Your task to perform on an android device: Open Amazon Image 0: 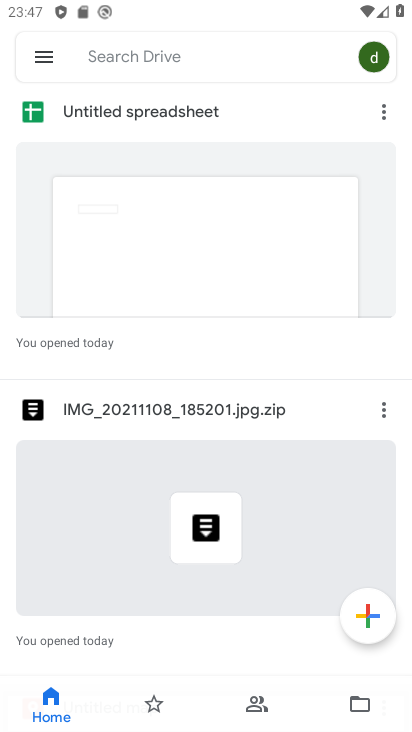
Step 0: press home button
Your task to perform on an android device: Open Amazon Image 1: 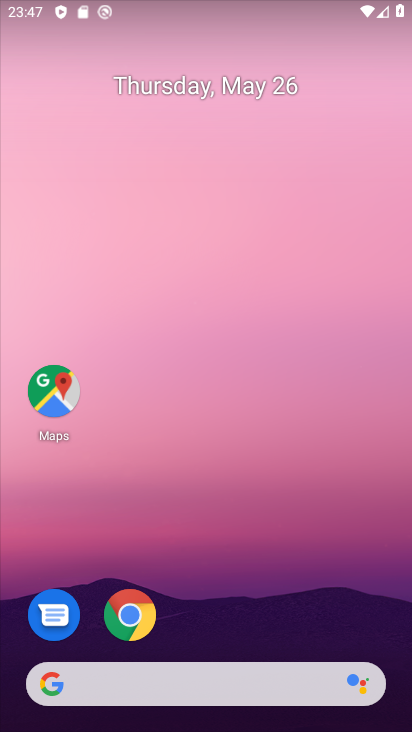
Step 1: drag from (315, 634) to (389, 177)
Your task to perform on an android device: Open Amazon Image 2: 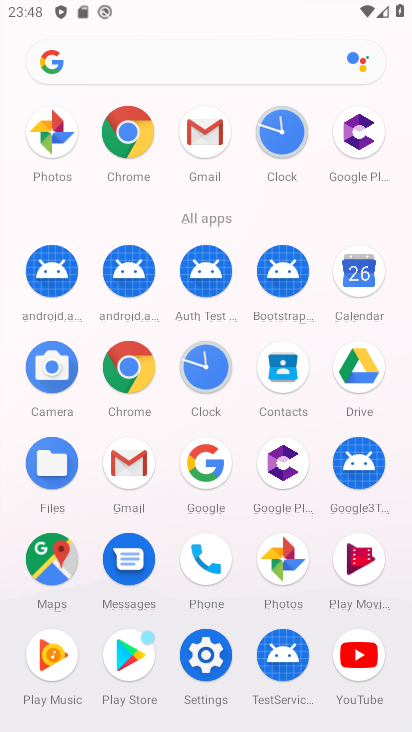
Step 2: click (137, 378)
Your task to perform on an android device: Open Amazon Image 3: 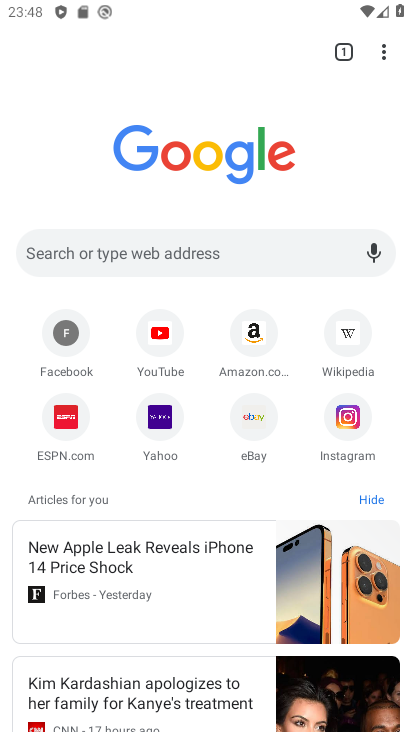
Step 3: click (248, 331)
Your task to perform on an android device: Open Amazon Image 4: 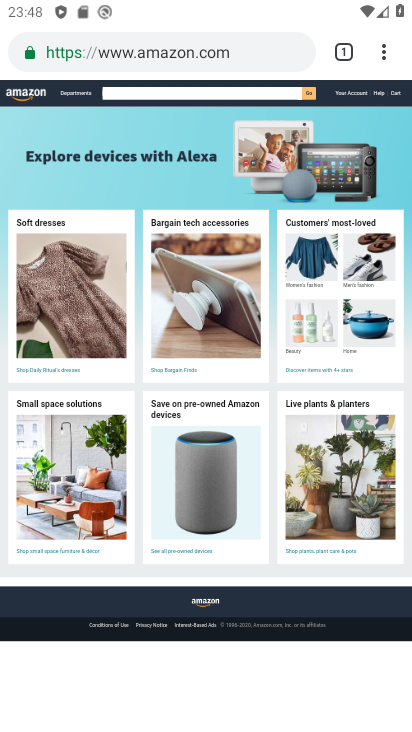
Step 4: task complete